Your task to perform on an android device: delete browsing data in the chrome app Image 0: 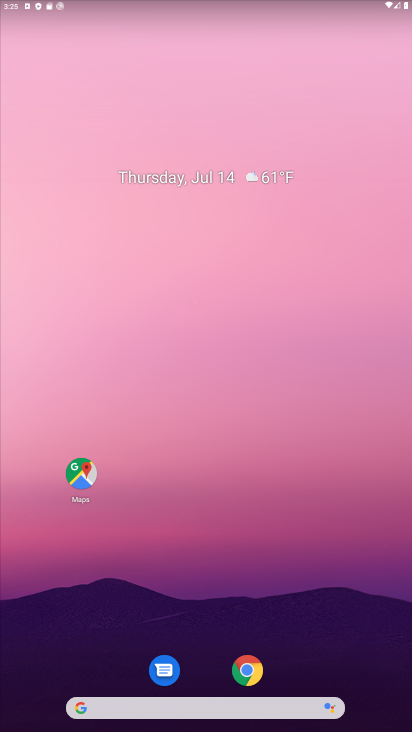
Step 0: click (250, 675)
Your task to perform on an android device: delete browsing data in the chrome app Image 1: 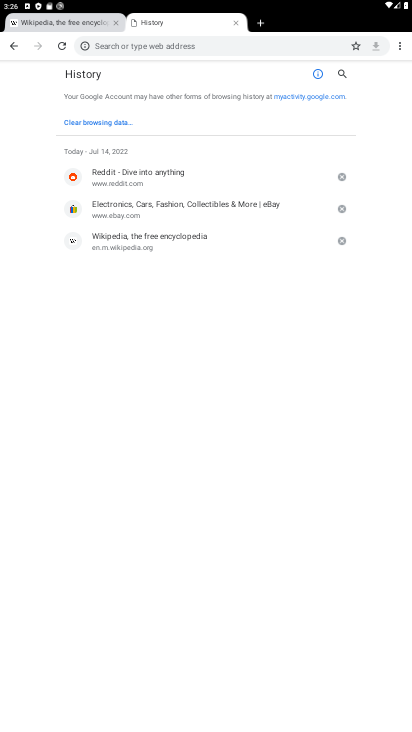
Step 1: click (100, 130)
Your task to perform on an android device: delete browsing data in the chrome app Image 2: 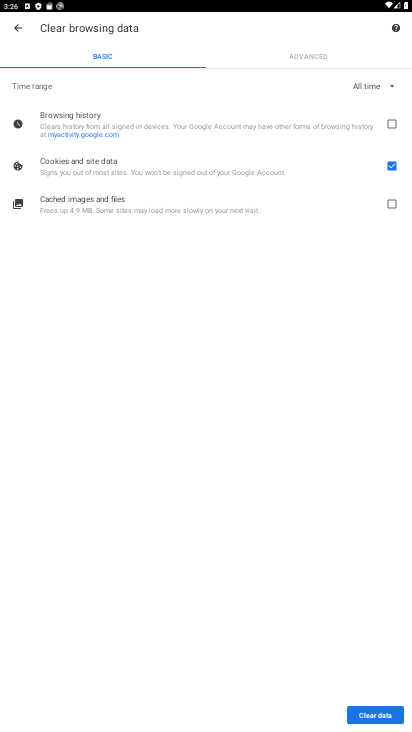
Step 2: click (391, 127)
Your task to perform on an android device: delete browsing data in the chrome app Image 3: 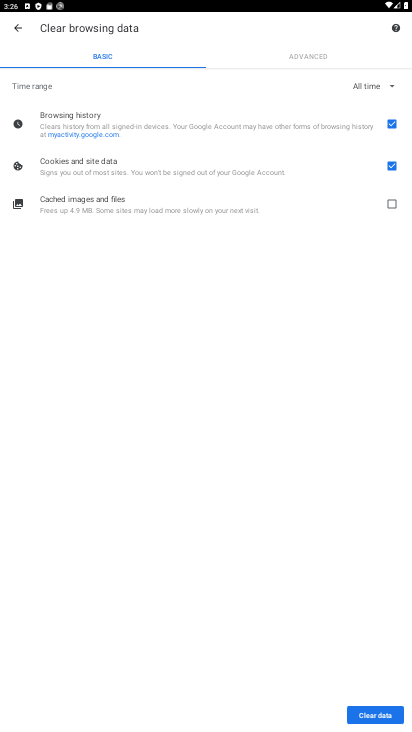
Step 3: click (392, 162)
Your task to perform on an android device: delete browsing data in the chrome app Image 4: 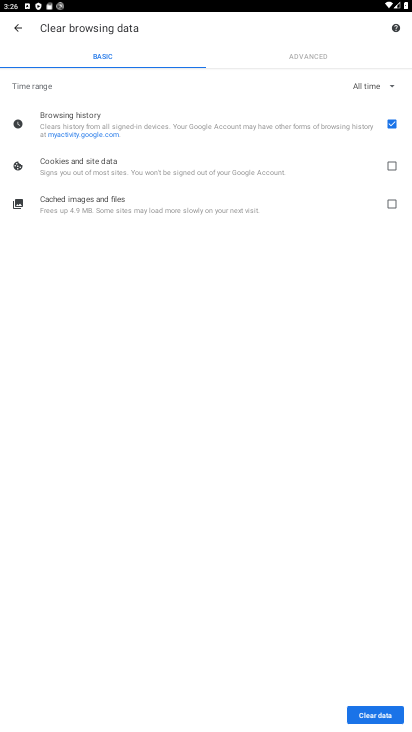
Step 4: click (371, 718)
Your task to perform on an android device: delete browsing data in the chrome app Image 5: 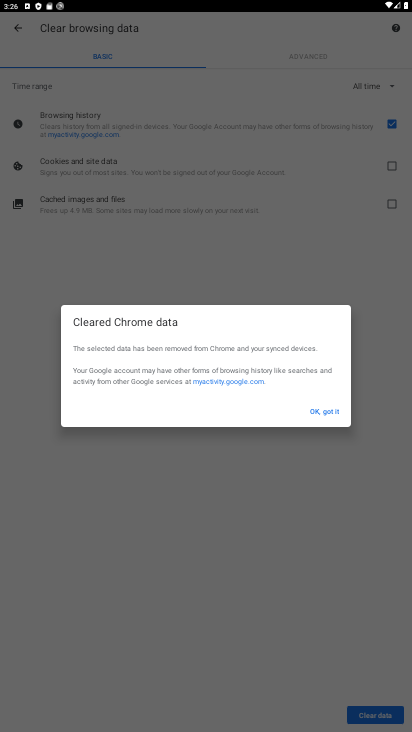
Step 5: click (332, 407)
Your task to perform on an android device: delete browsing data in the chrome app Image 6: 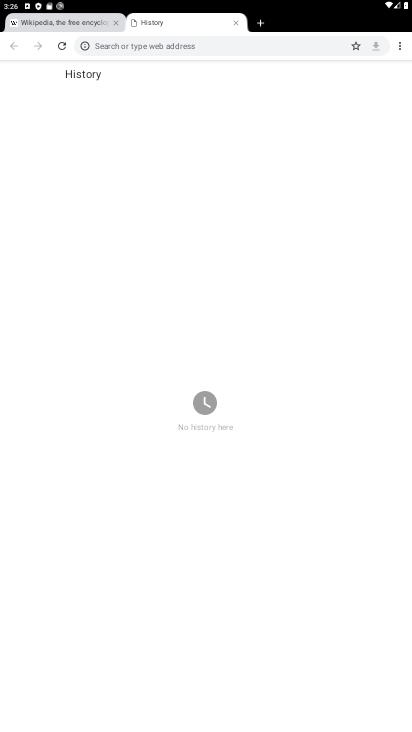
Step 6: task complete